Your task to perform on an android device: Search for seafood restaurants on Google Maps Image 0: 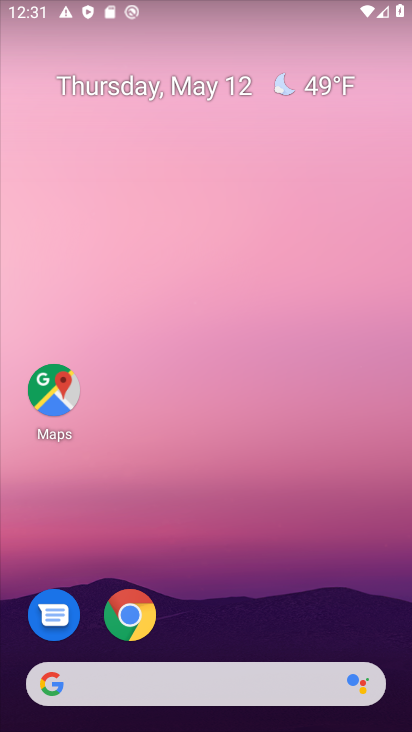
Step 0: drag from (268, 703) to (184, 287)
Your task to perform on an android device: Search for seafood restaurants on Google Maps Image 1: 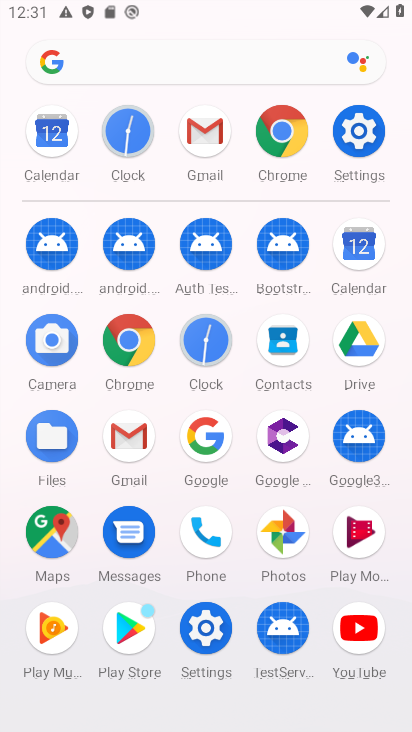
Step 1: click (39, 544)
Your task to perform on an android device: Search for seafood restaurants on Google Maps Image 2: 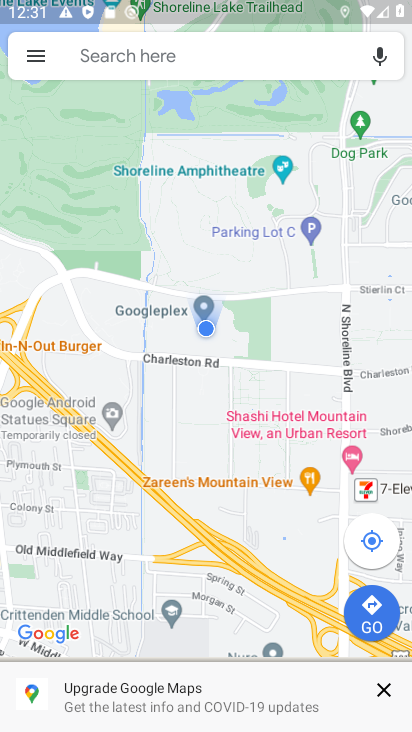
Step 2: click (158, 48)
Your task to perform on an android device: Search for seafood restaurants on Google Maps Image 3: 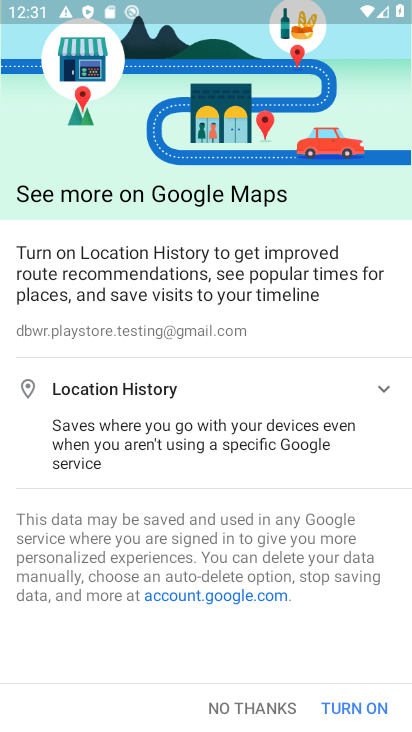
Step 3: click (237, 707)
Your task to perform on an android device: Search for seafood restaurants on Google Maps Image 4: 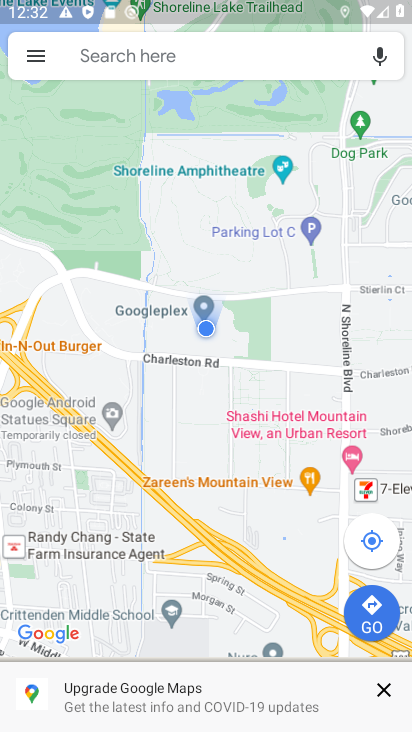
Step 4: click (189, 45)
Your task to perform on an android device: Search for seafood restaurants on Google Maps Image 5: 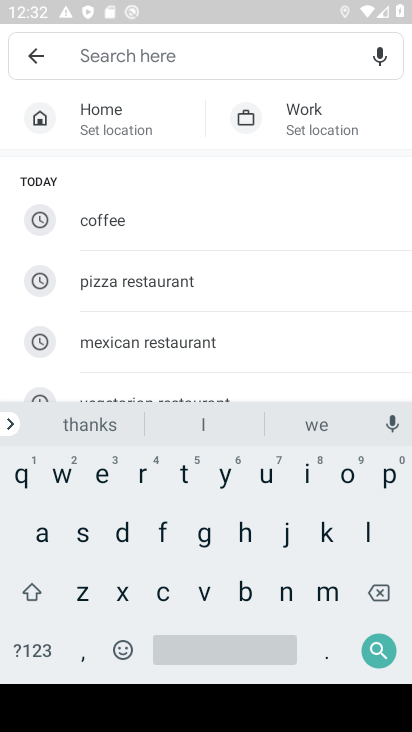
Step 5: click (80, 537)
Your task to perform on an android device: Search for seafood restaurants on Google Maps Image 6: 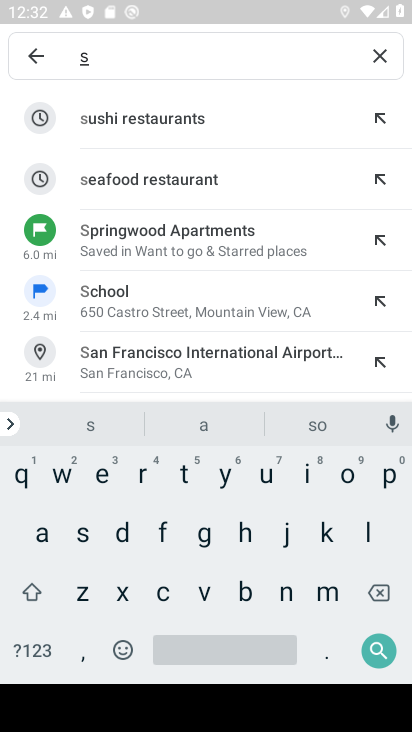
Step 6: click (221, 187)
Your task to perform on an android device: Search for seafood restaurants on Google Maps Image 7: 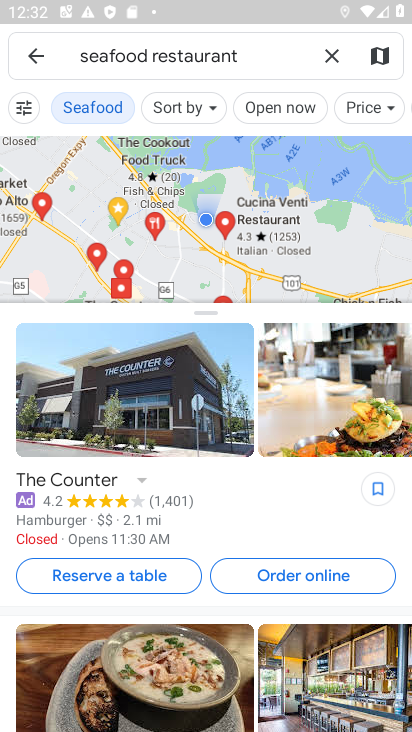
Step 7: click (88, 225)
Your task to perform on an android device: Search for seafood restaurants on Google Maps Image 8: 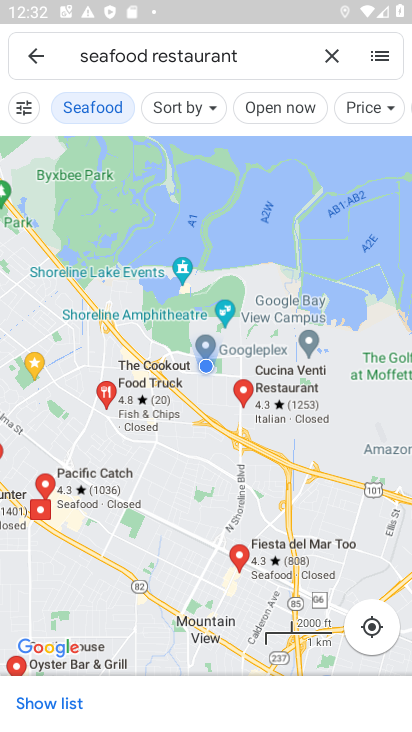
Step 8: task complete